Your task to perform on an android device: find photos in the google photos app Image 0: 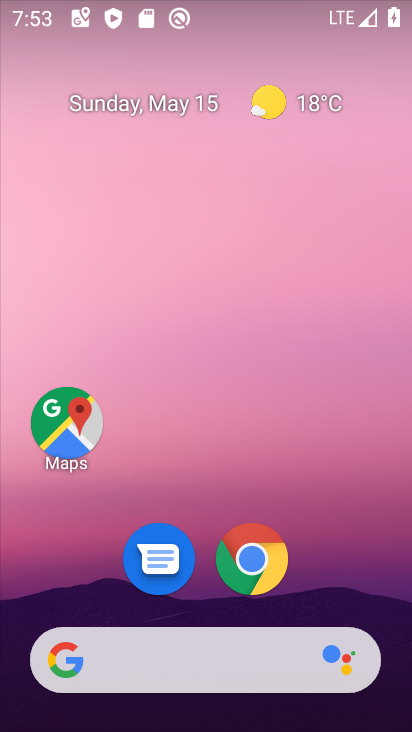
Step 0: click (333, 446)
Your task to perform on an android device: find photos in the google photos app Image 1: 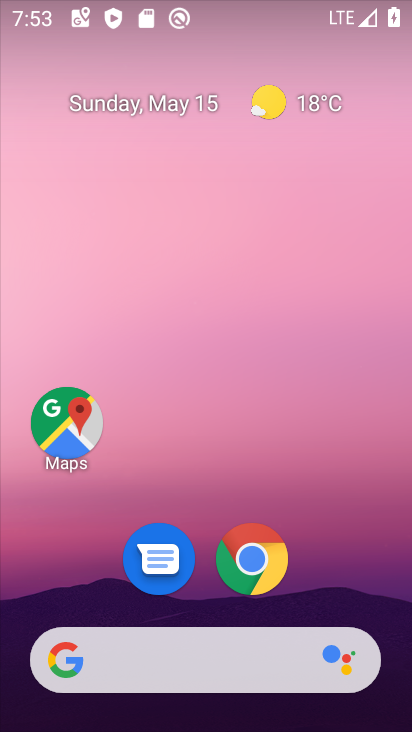
Step 1: drag from (336, 449) to (218, 52)
Your task to perform on an android device: find photos in the google photos app Image 2: 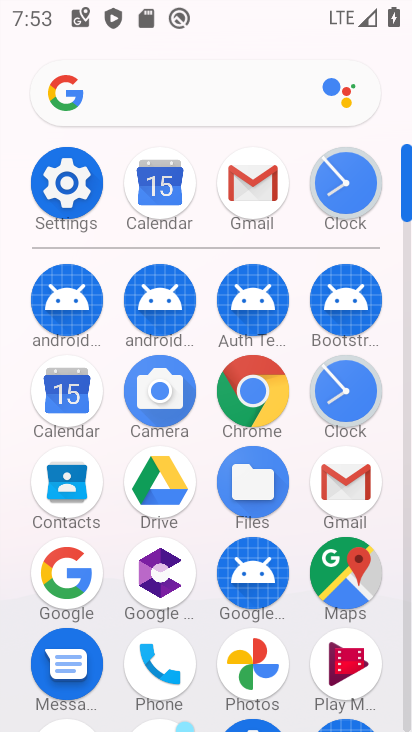
Step 2: click (243, 644)
Your task to perform on an android device: find photos in the google photos app Image 3: 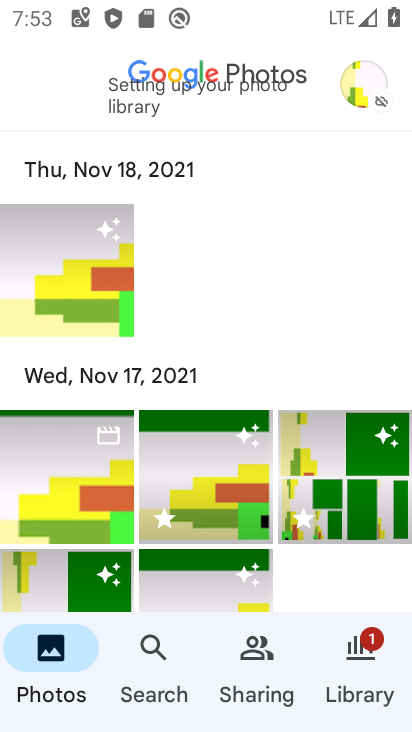
Step 3: click (149, 643)
Your task to perform on an android device: find photos in the google photos app Image 4: 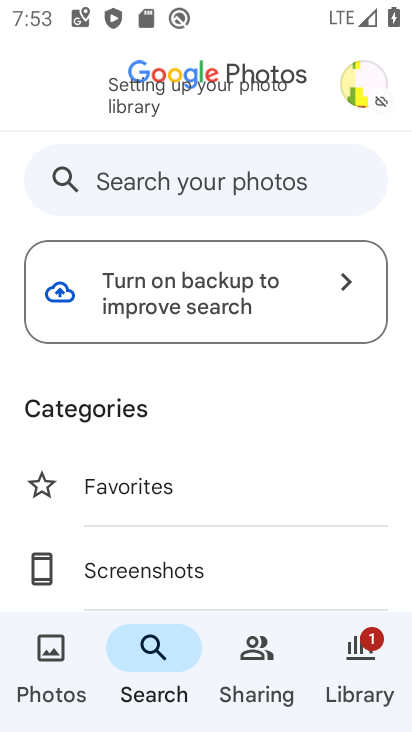
Step 4: click (182, 179)
Your task to perform on an android device: find photos in the google photos app Image 5: 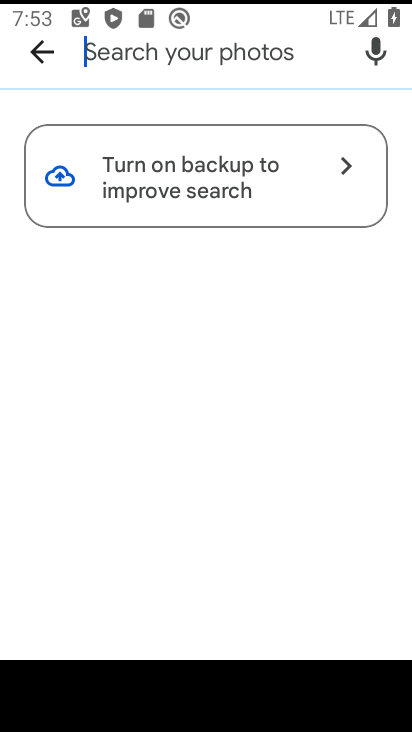
Step 5: task complete